Your task to perform on an android device: Open Maps and search for coffee Image 0: 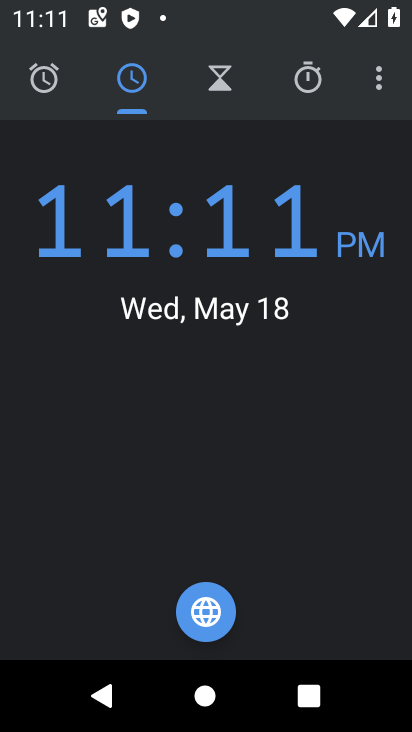
Step 0: press home button
Your task to perform on an android device: Open Maps and search for coffee Image 1: 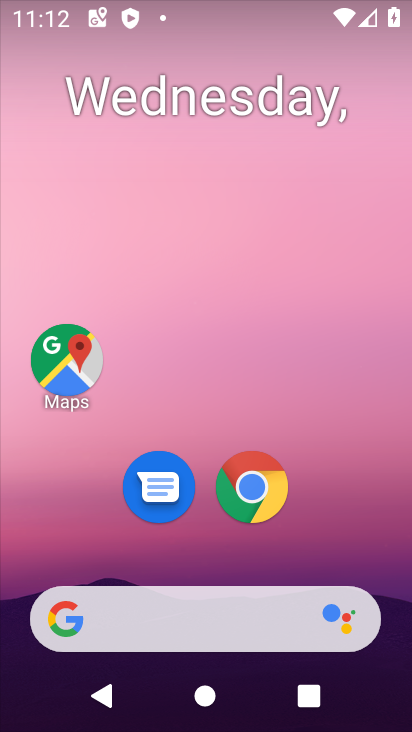
Step 1: click (68, 361)
Your task to perform on an android device: Open Maps and search for coffee Image 2: 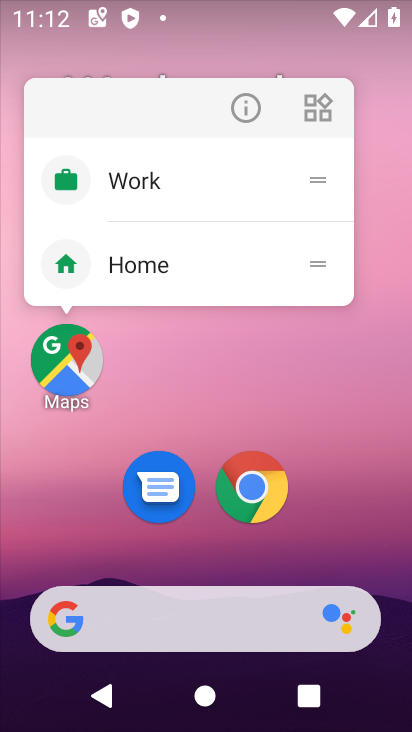
Step 2: click (67, 361)
Your task to perform on an android device: Open Maps and search for coffee Image 3: 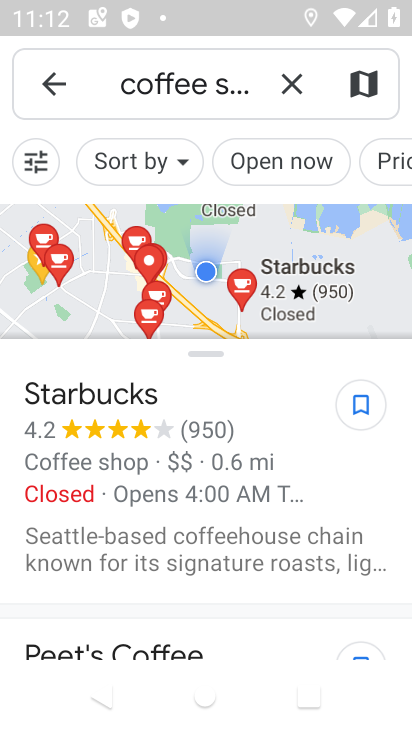
Step 3: task complete